Your task to perform on an android device: make emails show in primary in the gmail app Image 0: 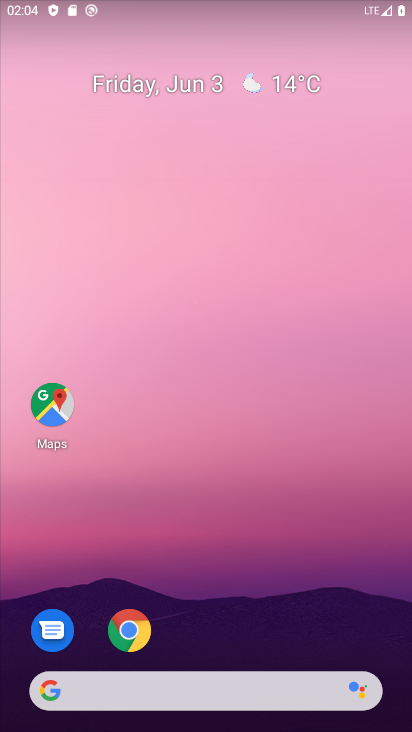
Step 0: drag from (388, 720) to (373, 139)
Your task to perform on an android device: make emails show in primary in the gmail app Image 1: 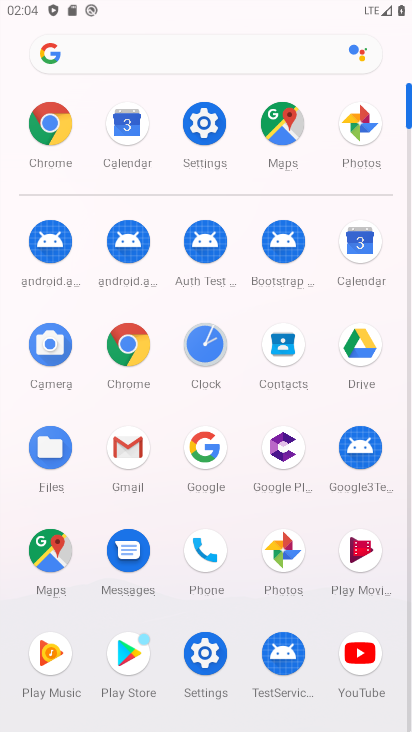
Step 1: click (137, 455)
Your task to perform on an android device: make emails show in primary in the gmail app Image 2: 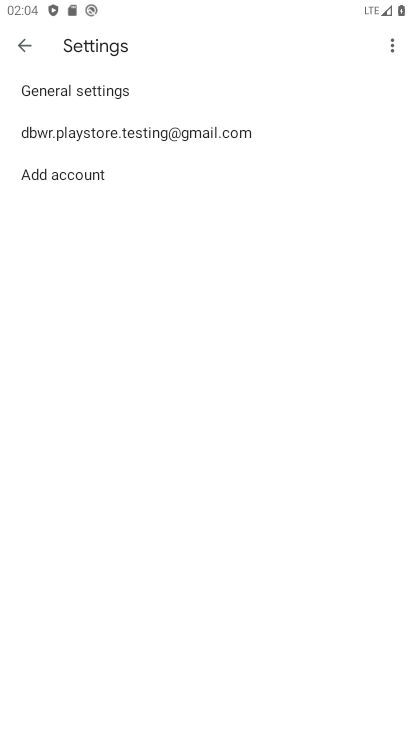
Step 2: click (62, 132)
Your task to perform on an android device: make emails show in primary in the gmail app Image 3: 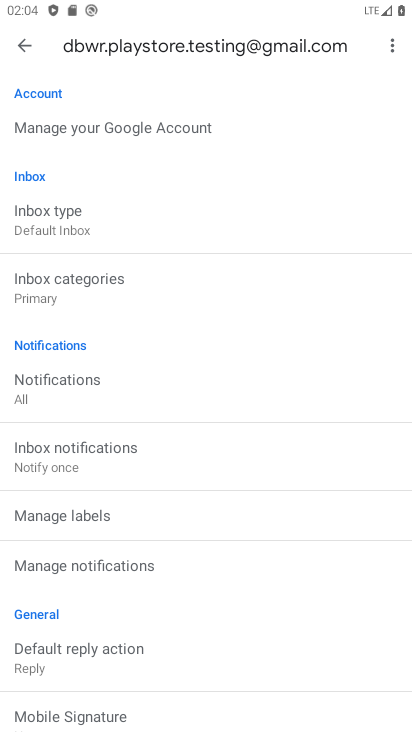
Step 3: task complete